Your task to perform on an android device: Open maps Image 0: 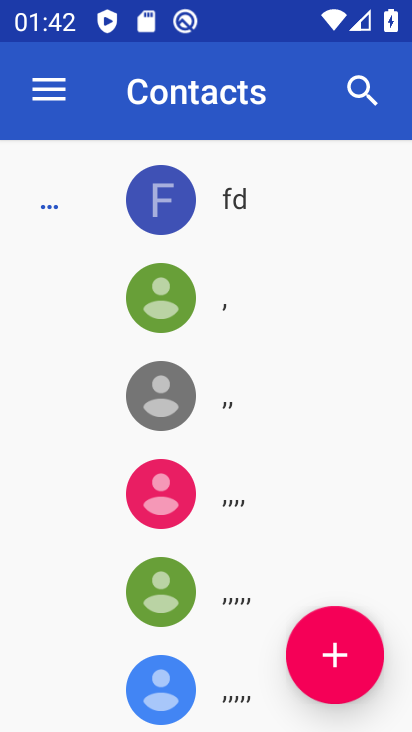
Step 0: press home button
Your task to perform on an android device: Open maps Image 1: 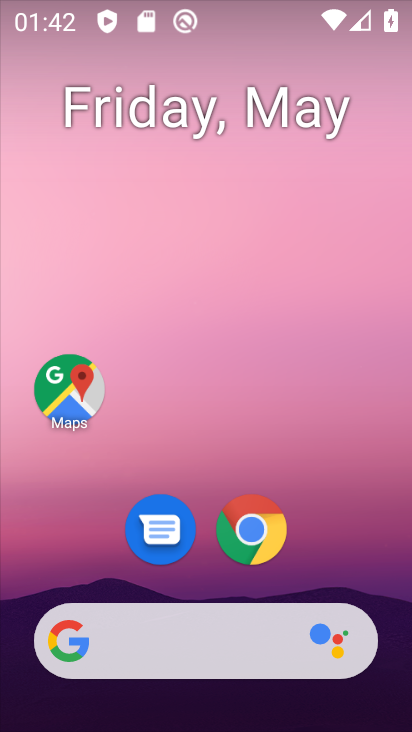
Step 1: click (71, 388)
Your task to perform on an android device: Open maps Image 2: 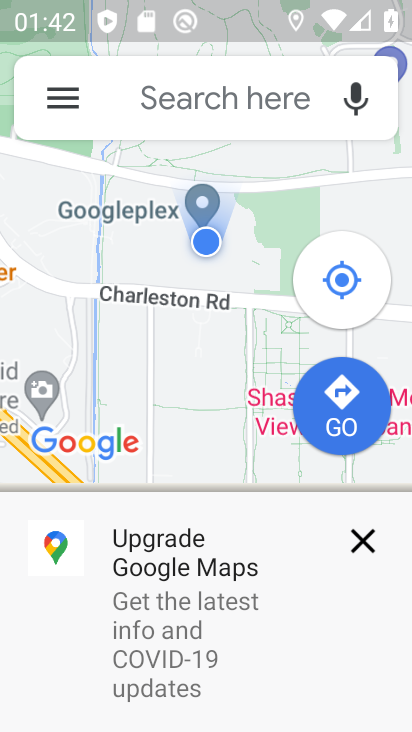
Step 2: task complete